Your task to perform on an android device: open chrome privacy settings Image 0: 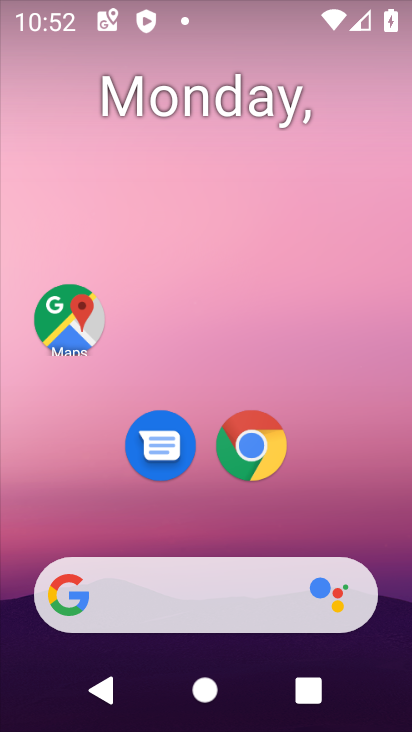
Step 0: click (256, 431)
Your task to perform on an android device: open chrome privacy settings Image 1: 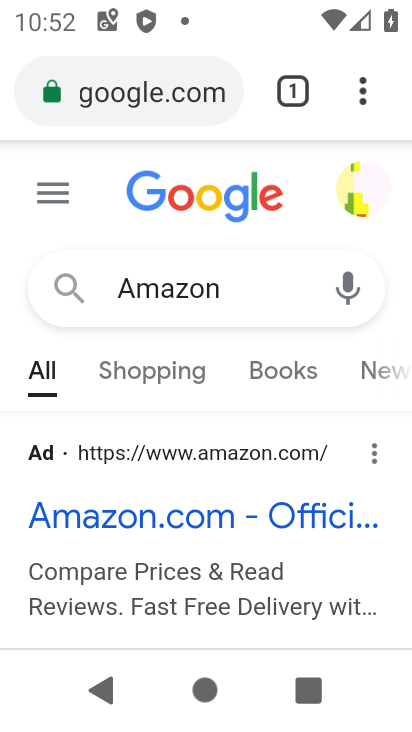
Step 1: click (357, 92)
Your task to perform on an android device: open chrome privacy settings Image 2: 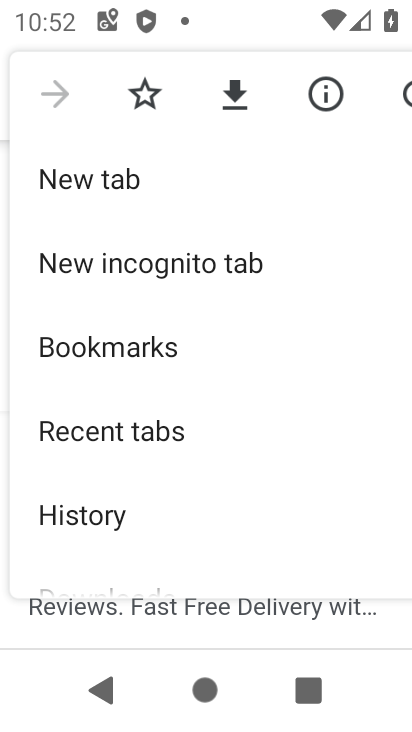
Step 2: drag from (176, 510) to (219, 217)
Your task to perform on an android device: open chrome privacy settings Image 3: 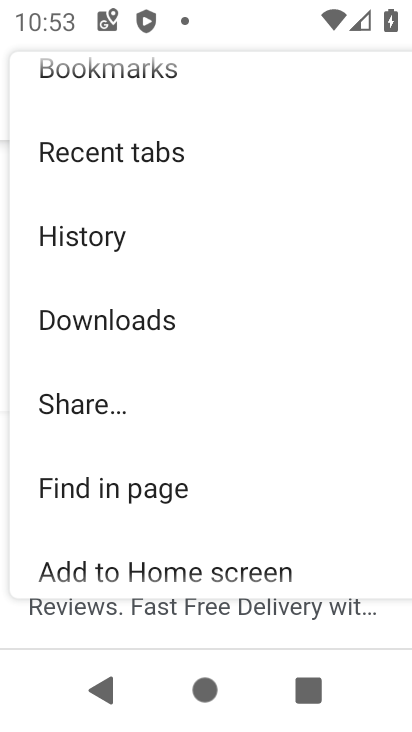
Step 3: drag from (86, 457) to (124, 148)
Your task to perform on an android device: open chrome privacy settings Image 4: 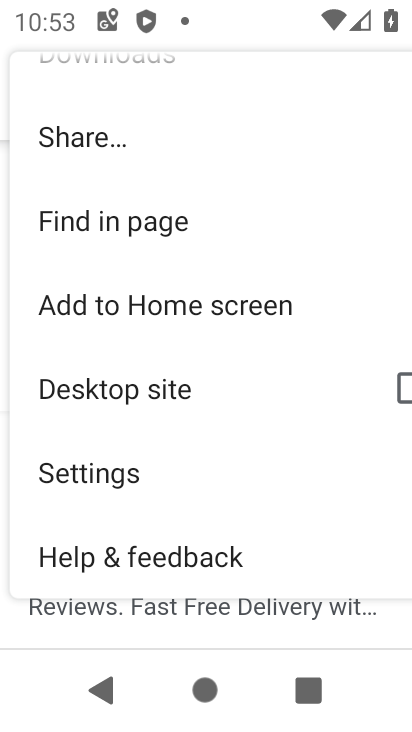
Step 4: click (110, 469)
Your task to perform on an android device: open chrome privacy settings Image 5: 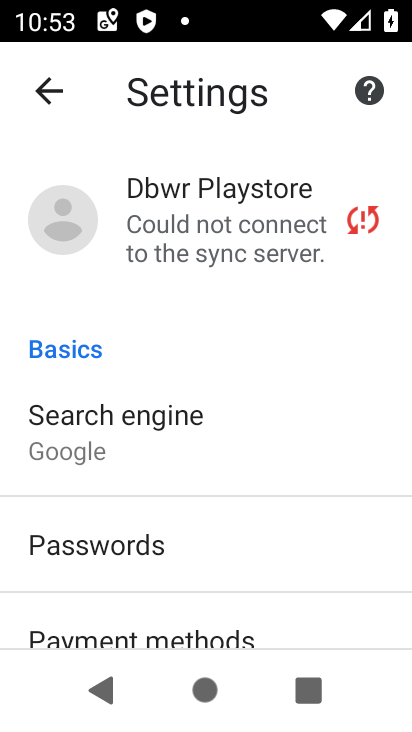
Step 5: drag from (212, 529) to (273, 98)
Your task to perform on an android device: open chrome privacy settings Image 6: 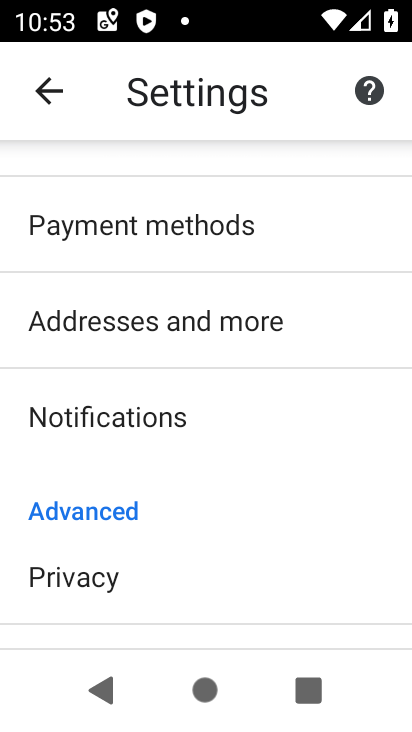
Step 6: click (80, 590)
Your task to perform on an android device: open chrome privacy settings Image 7: 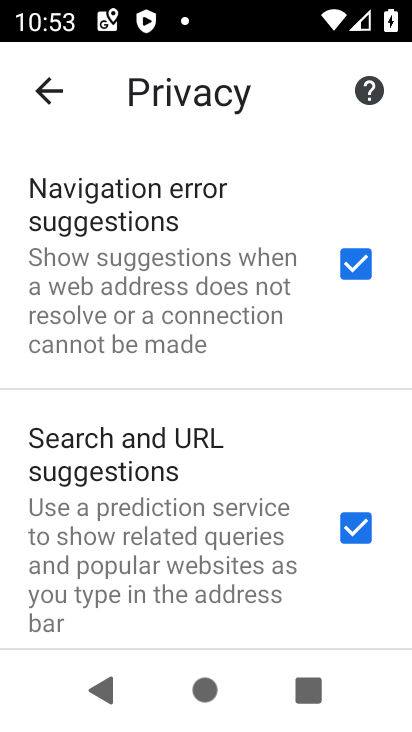
Step 7: task complete